Your task to perform on an android device: View the shopping cart on ebay. Image 0: 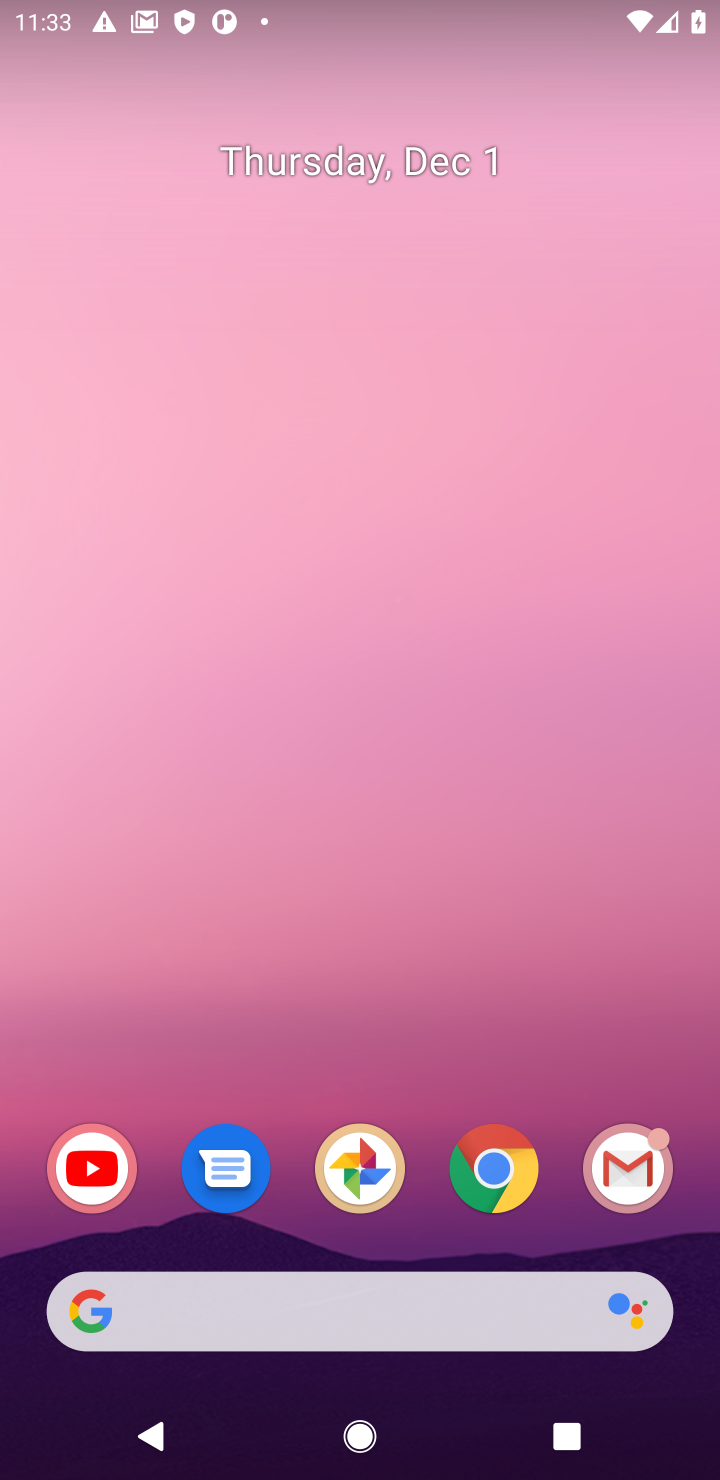
Step 0: click (502, 1188)
Your task to perform on an android device: View the shopping cart on ebay. Image 1: 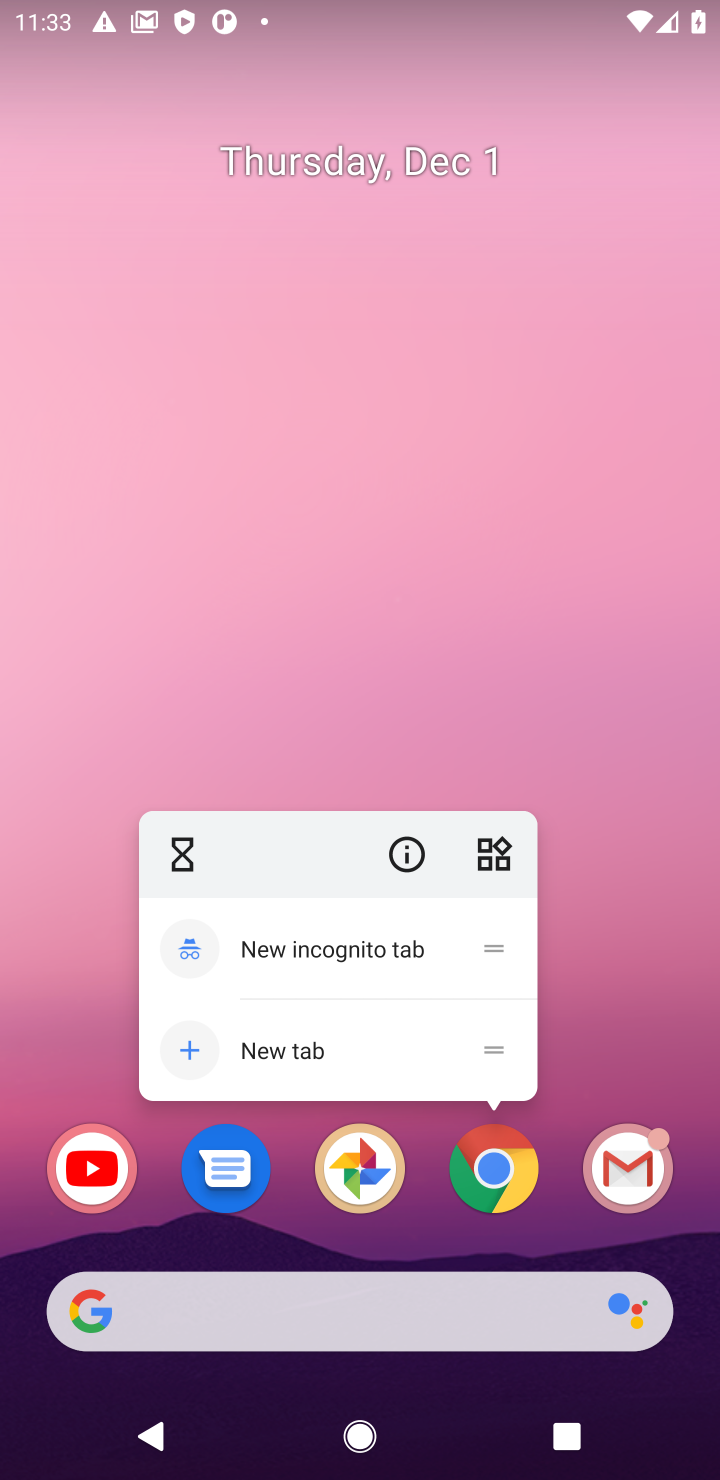
Step 1: click (502, 1188)
Your task to perform on an android device: View the shopping cart on ebay. Image 2: 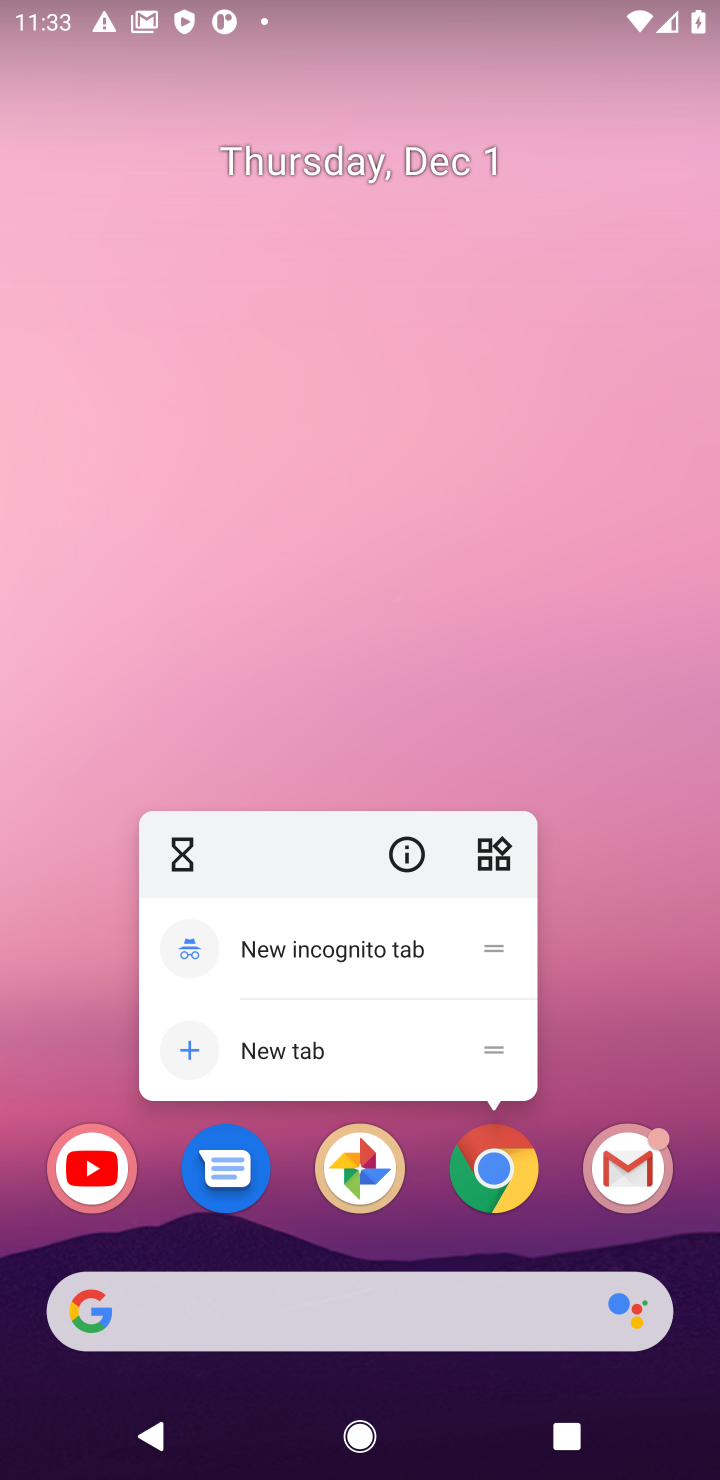
Step 2: click (498, 1166)
Your task to perform on an android device: View the shopping cart on ebay. Image 3: 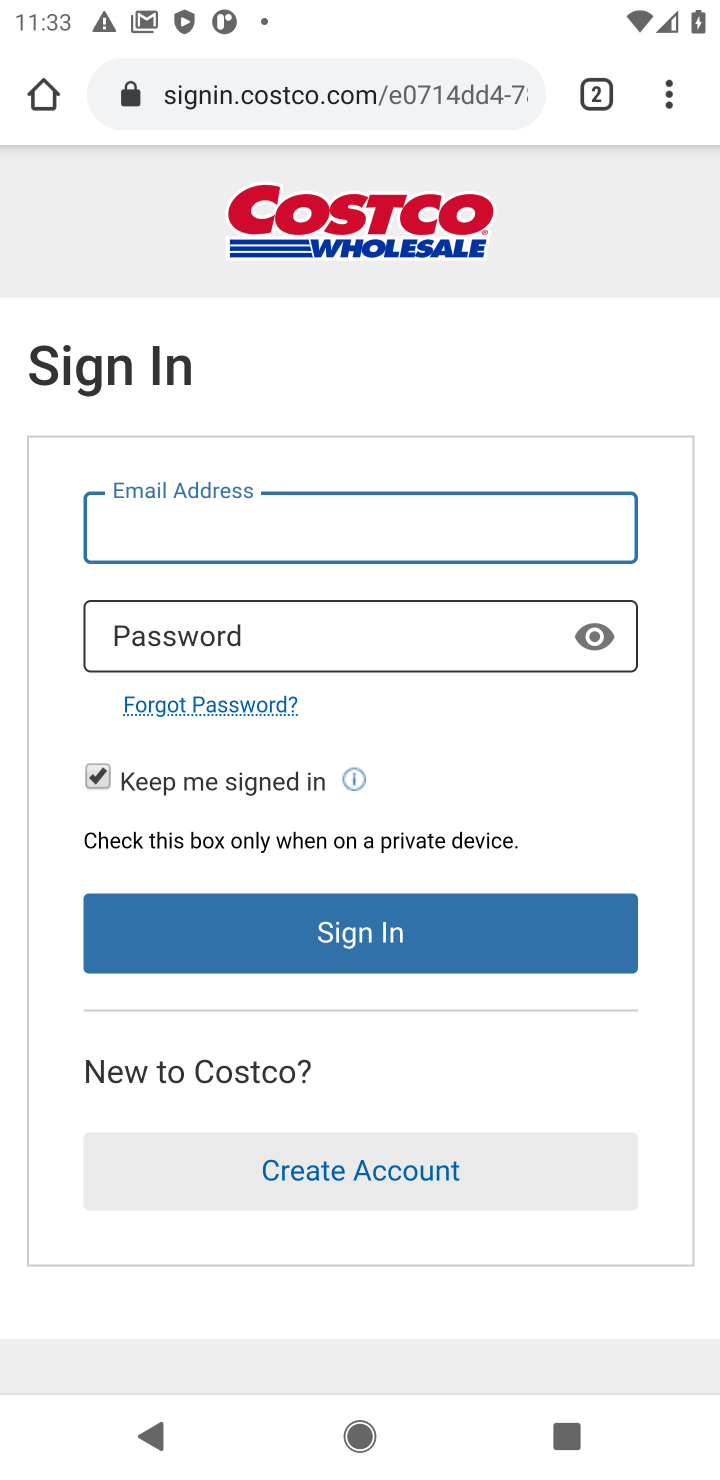
Step 3: click (301, 97)
Your task to perform on an android device: View the shopping cart on ebay. Image 4: 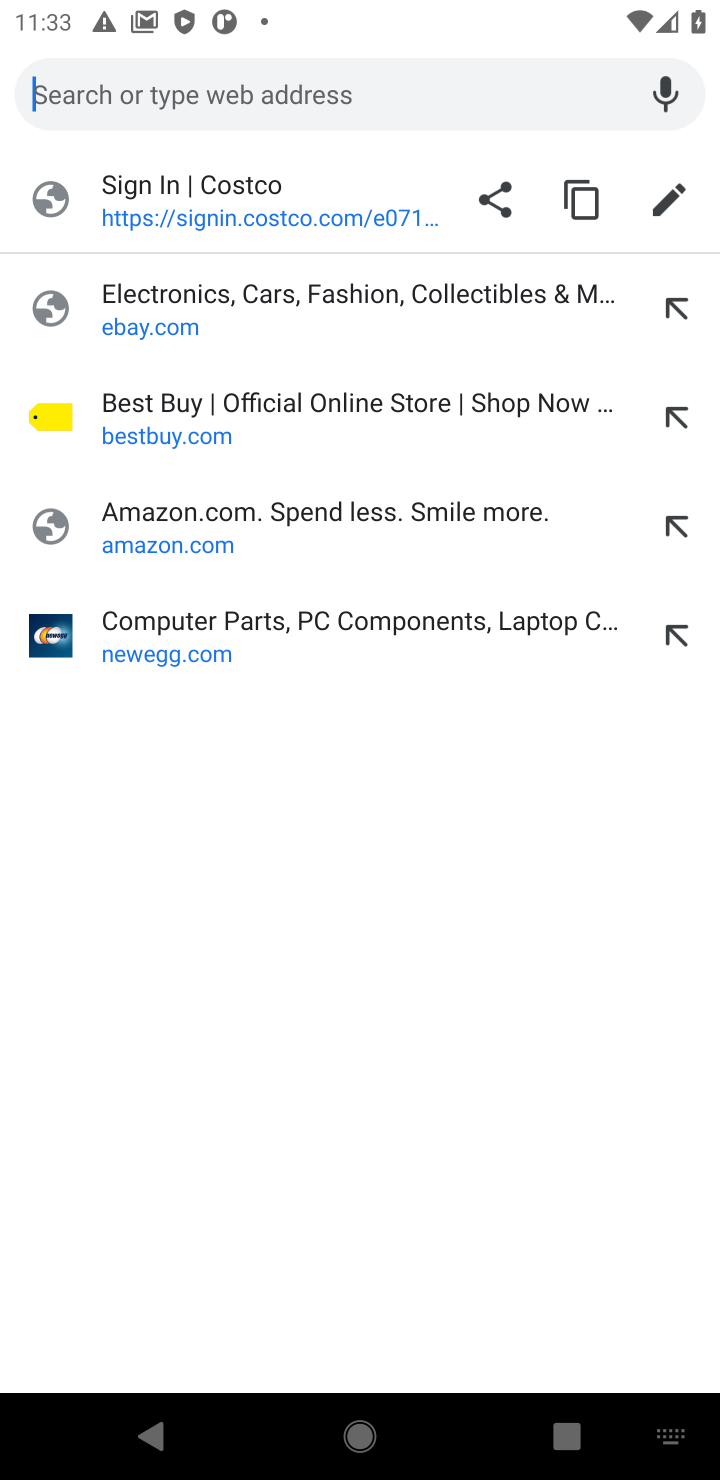
Step 4: click (133, 337)
Your task to perform on an android device: View the shopping cart on ebay. Image 5: 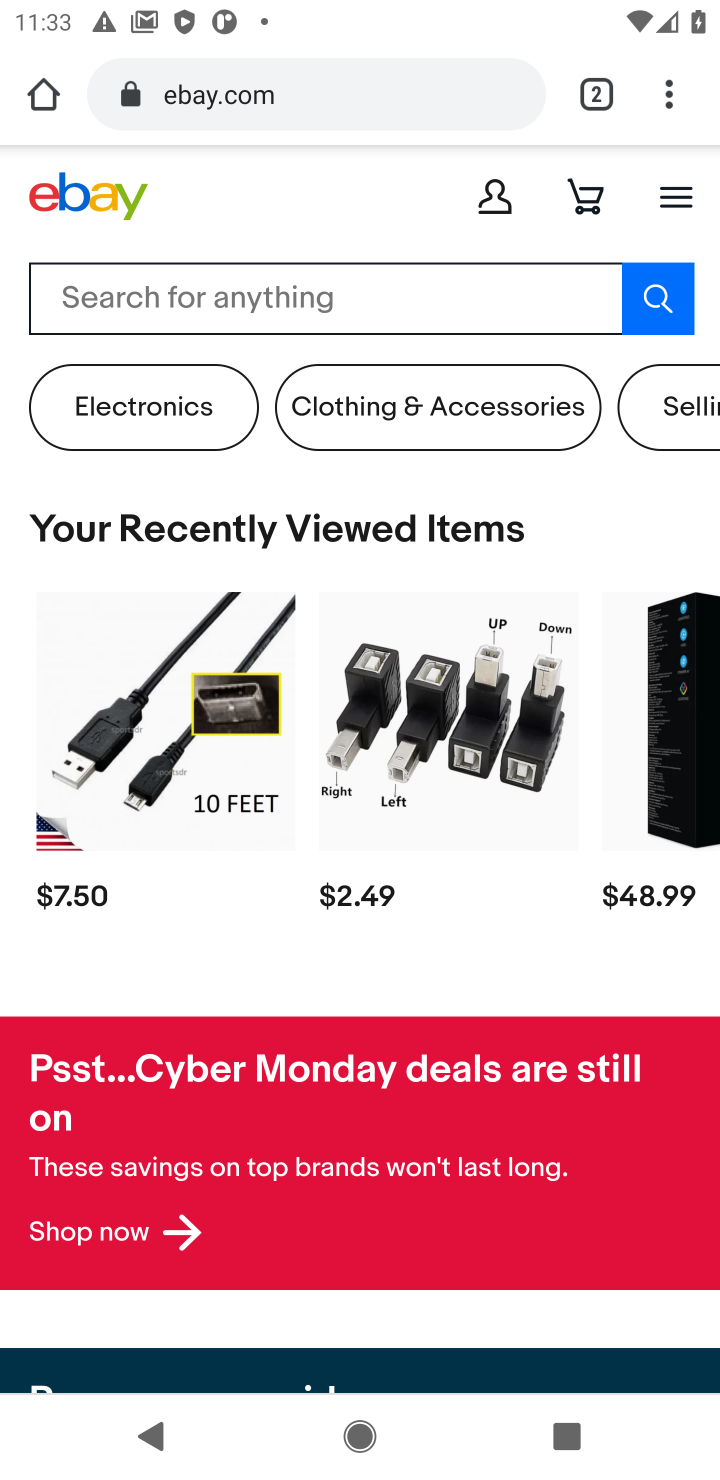
Step 5: click (587, 199)
Your task to perform on an android device: View the shopping cart on ebay. Image 6: 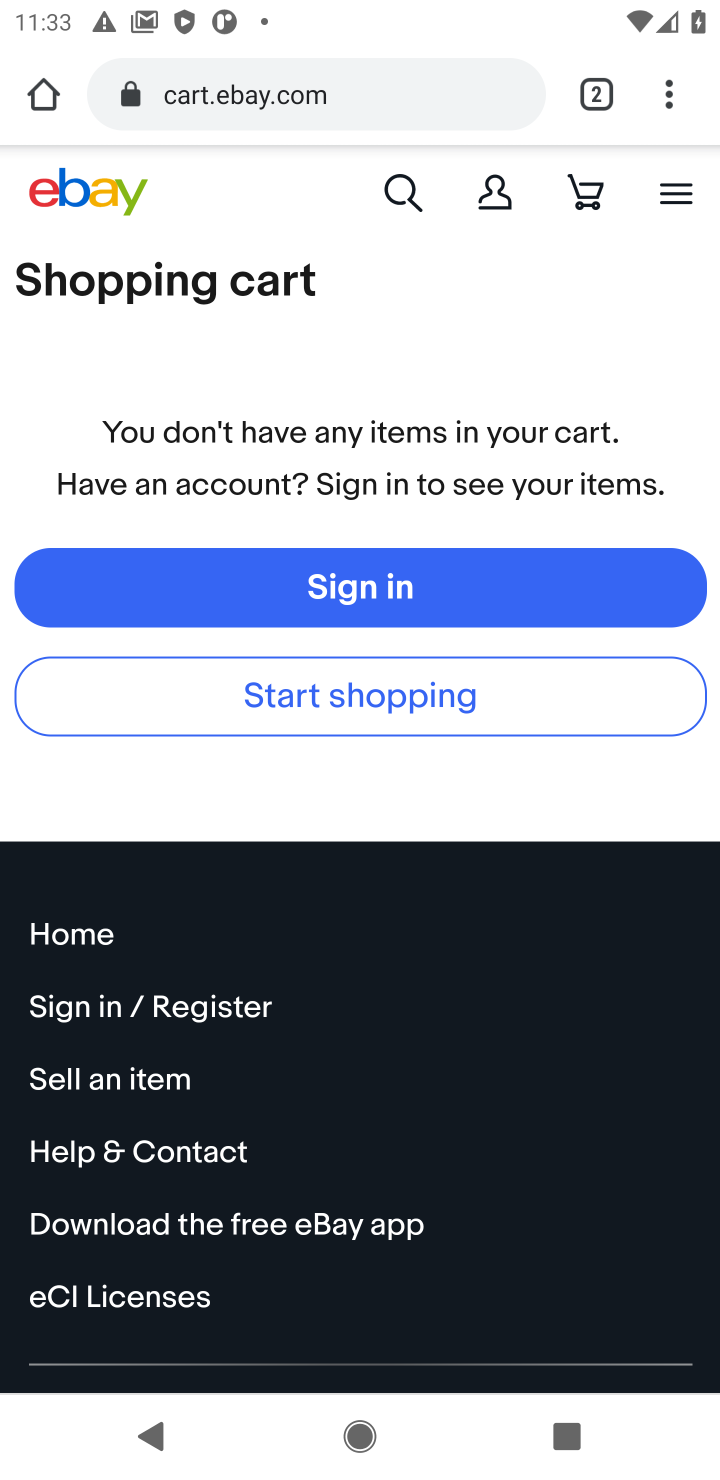
Step 6: task complete